Your task to perform on an android device: Open calendar and show me the first week of next month Image 0: 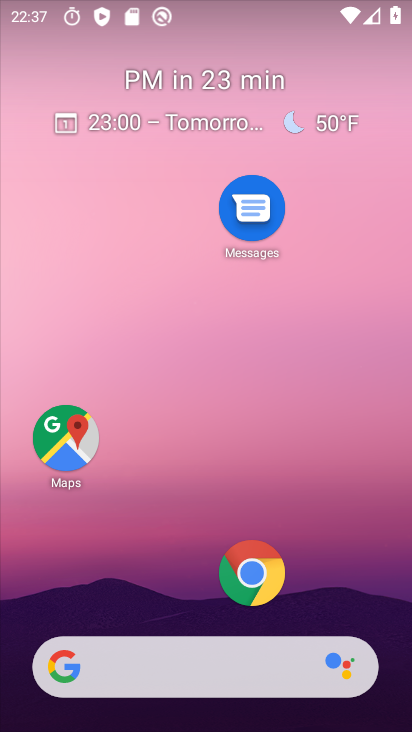
Step 0: drag from (162, 551) to (187, 149)
Your task to perform on an android device: Open calendar and show me the first week of next month Image 1: 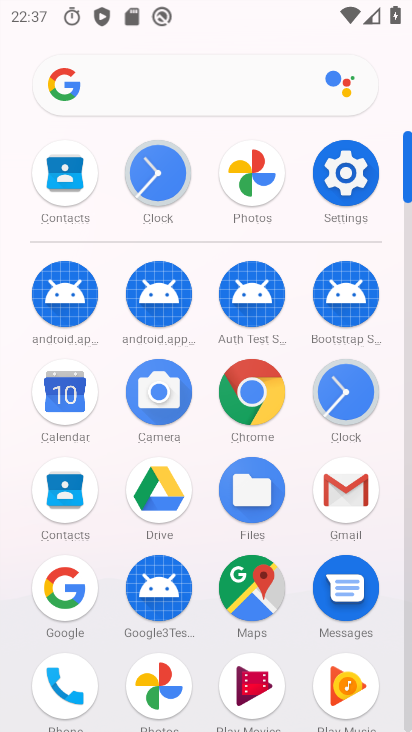
Step 1: click (65, 397)
Your task to perform on an android device: Open calendar and show me the first week of next month Image 2: 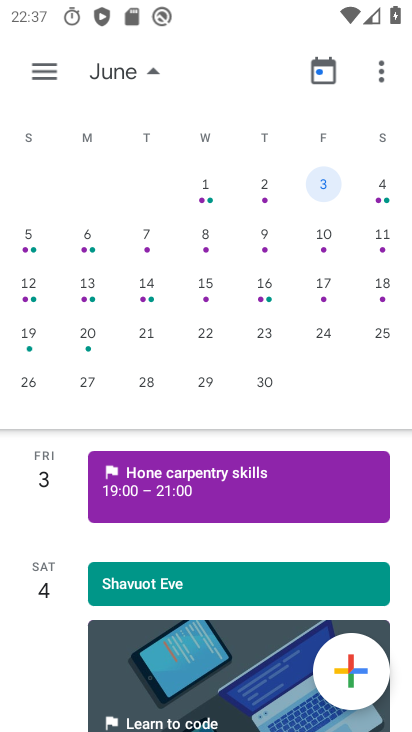
Step 2: click (387, 187)
Your task to perform on an android device: Open calendar and show me the first week of next month Image 3: 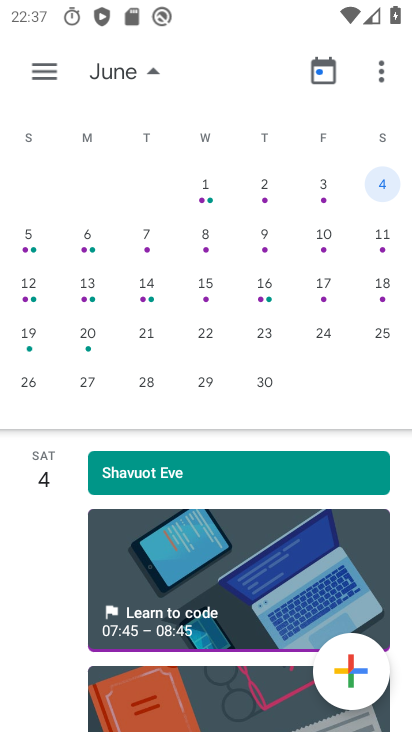
Step 3: task complete